Your task to perform on an android device: Go to Android settings Image 0: 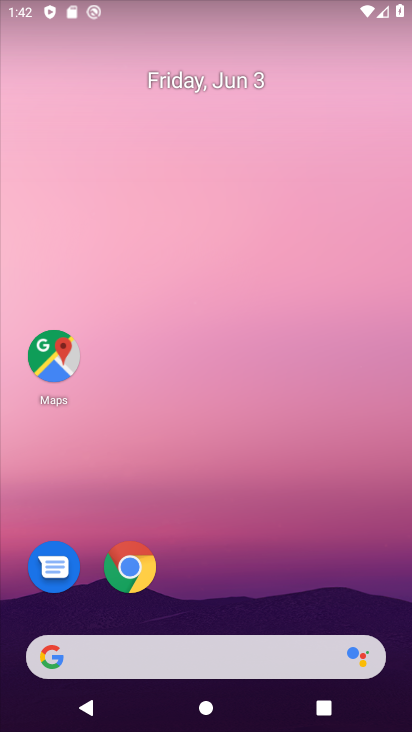
Step 0: drag from (233, 597) to (253, 50)
Your task to perform on an android device: Go to Android settings Image 1: 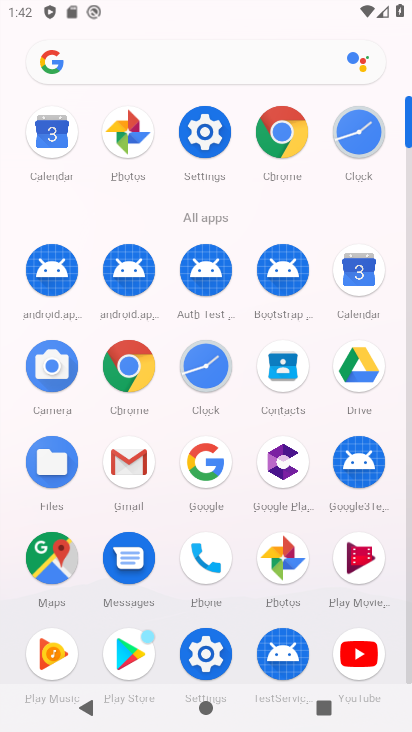
Step 1: click (201, 126)
Your task to perform on an android device: Go to Android settings Image 2: 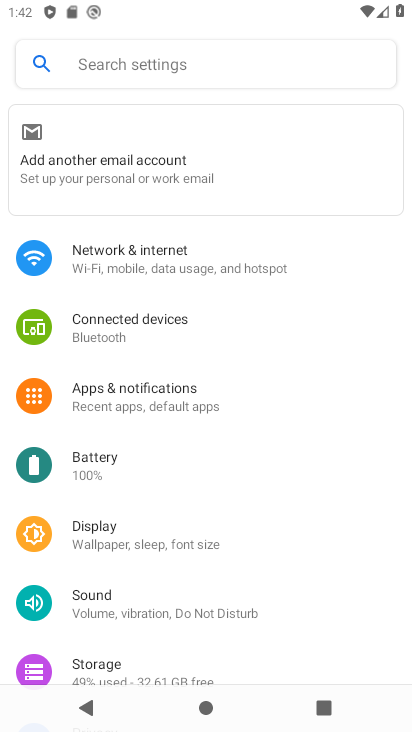
Step 2: drag from (201, 576) to (288, 77)
Your task to perform on an android device: Go to Android settings Image 3: 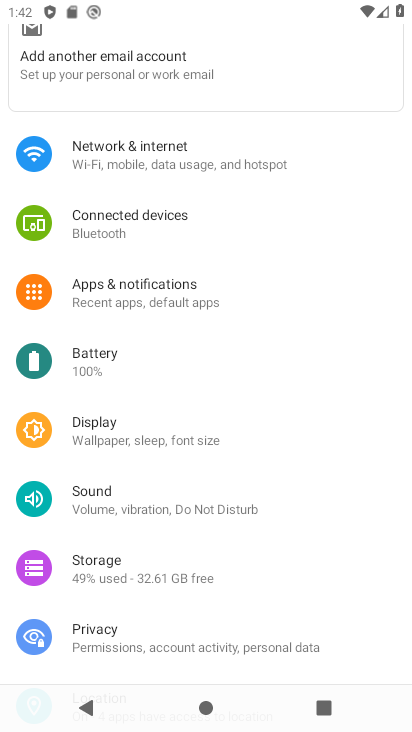
Step 3: drag from (126, 589) to (187, 89)
Your task to perform on an android device: Go to Android settings Image 4: 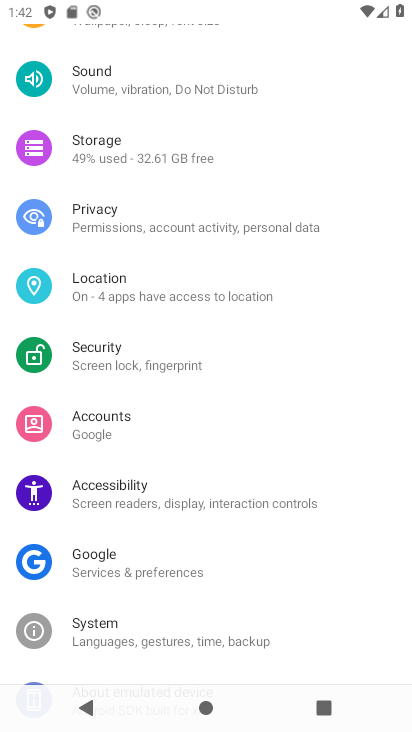
Step 4: drag from (163, 599) to (218, 59)
Your task to perform on an android device: Go to Android settings Image 5: 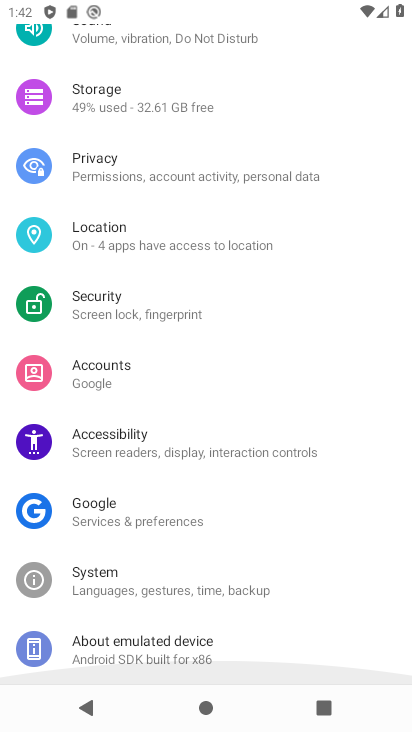
Step 5: click (136, 642)
Your task to perform on an android device: Go to Android settings Image 6: 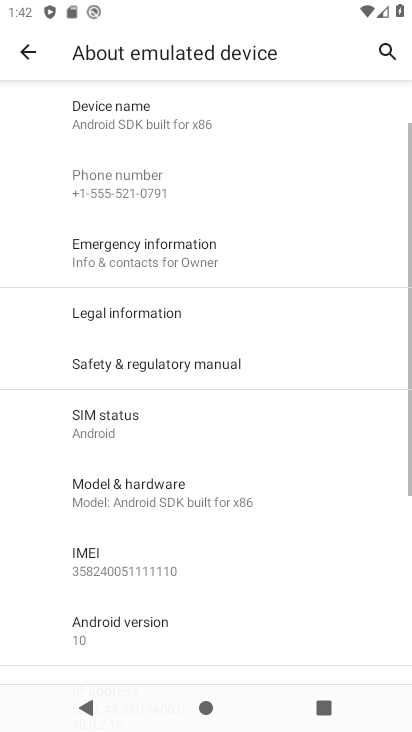
Step 6: click (99, 643)
Your task to perform on an android device: Go to Android settings Image 7: 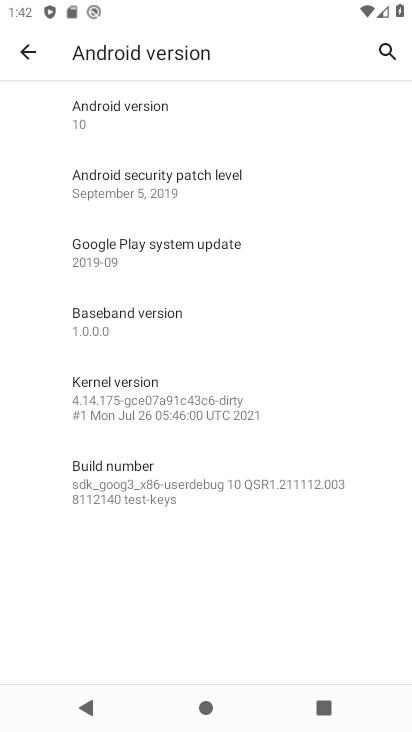
Step 7: task complete